Your task to perform on an android device: Open location settings Image 0: 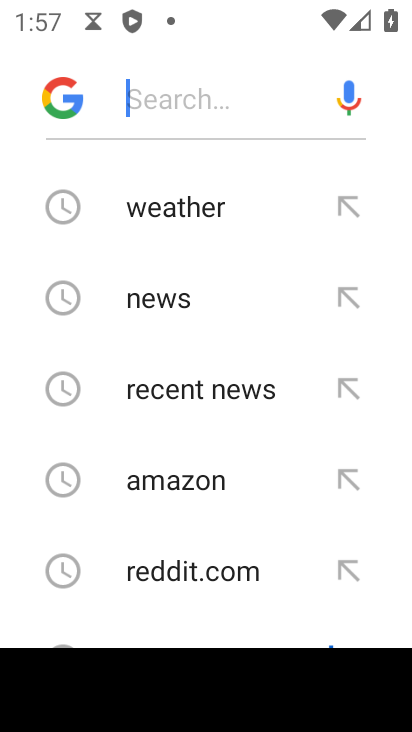
Step 0: press back button
Your task to perform on an android device: Open location settings Image 1: 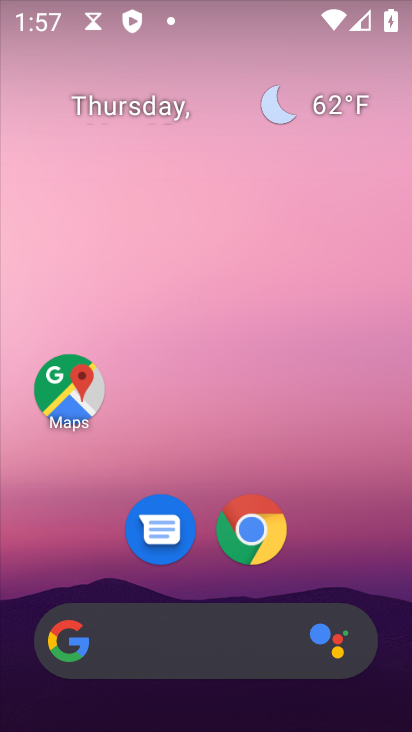
Step 1: drag from (322, 512) to (254, 49)
Your task to perform on an android device: Open location settings Image 2: 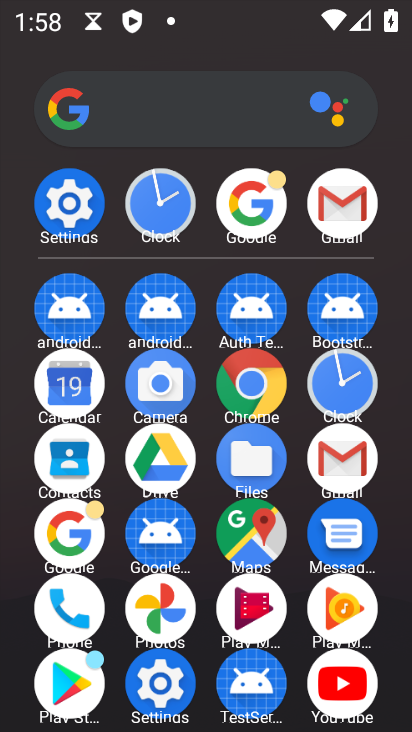
Step 2: click (70, 199)
Your task to perform on an android device: Open location settings Image 3: 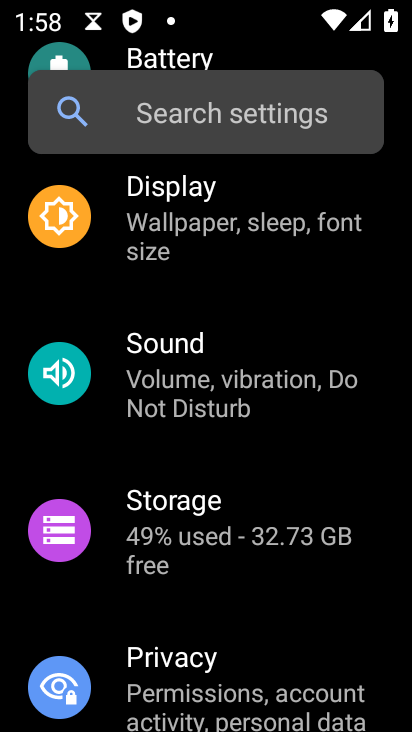
Step 3: drag from (237, 452) to (223, 369)
Your task to perform on an android device: Open location settings Image 4: 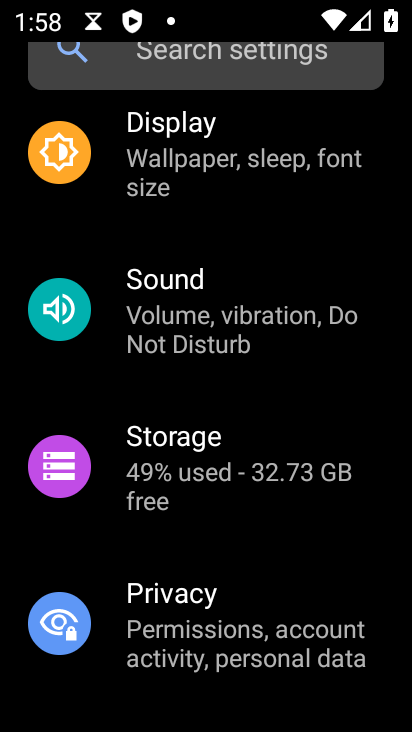
Step 4: drag from (250, 541) to (224, 395)
Your task to perform on an android device: Open location settings Image 5: 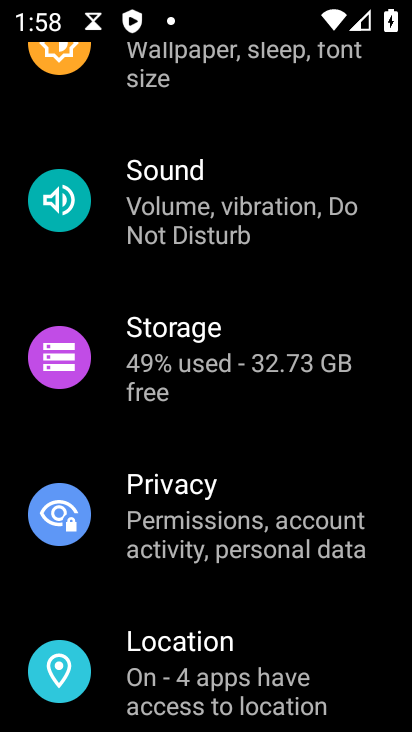
Step 5: drag from (198, 599) to (192, 492)
Your task to perform on an android device: Open location settings Image 6: 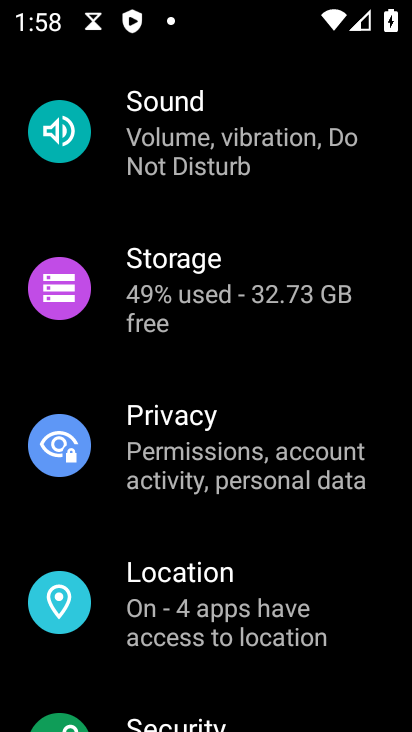
Step 6: click (191, 562)
Your task to perform on an android device: Open location settings Image 7: 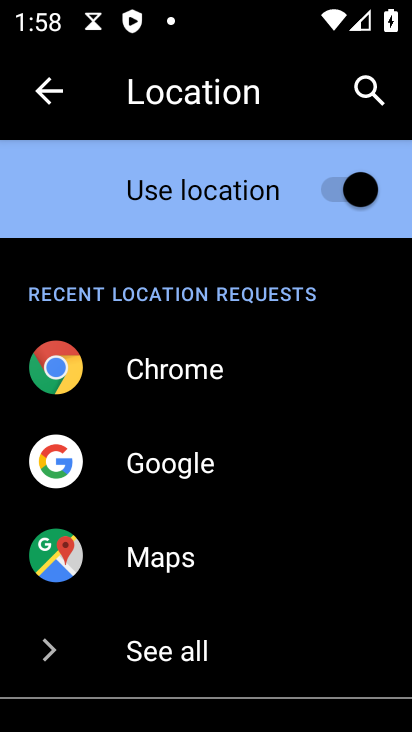
Step 7: task complete